Your task to perform on an android device: snooze an email in the gmail app Image 0: 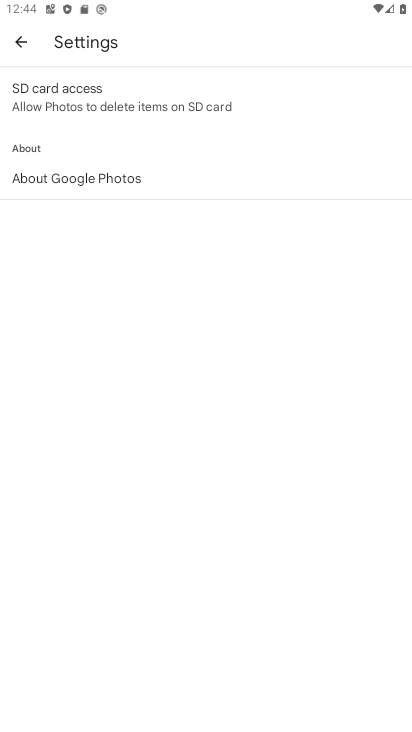
Step 0: press home button
Your task to perform on an android device: snooze an email in the gmail app Image 1: 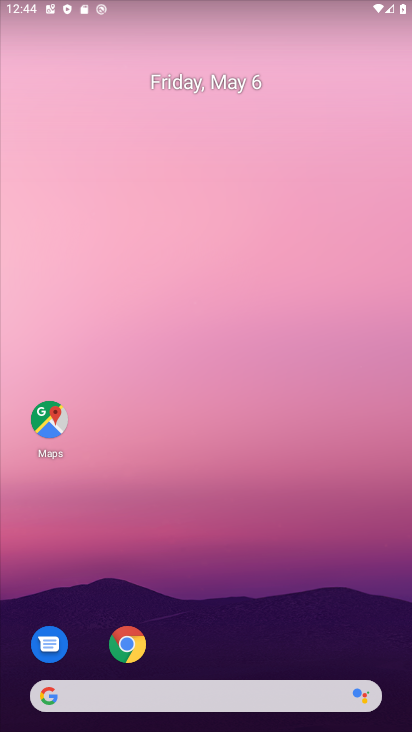
Step 1: drag from (202, 697) to (152, 71)
Your task to perform on an android device: snooze an email in the gmail app Image 2: 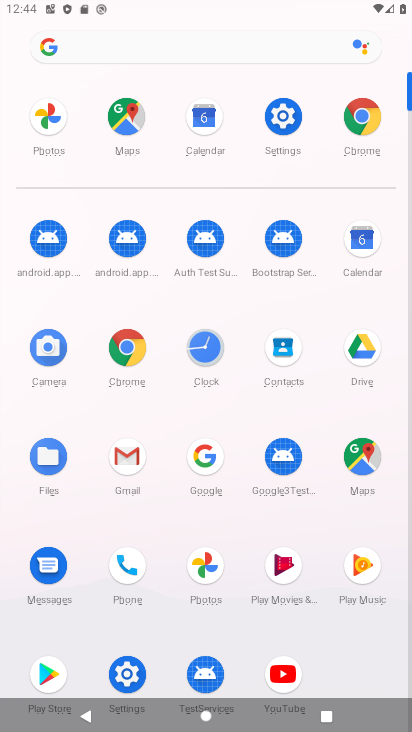
Step 2: click (126, 467)
Your task to perform on an android device: snooze an email in the gmail app Image 3: 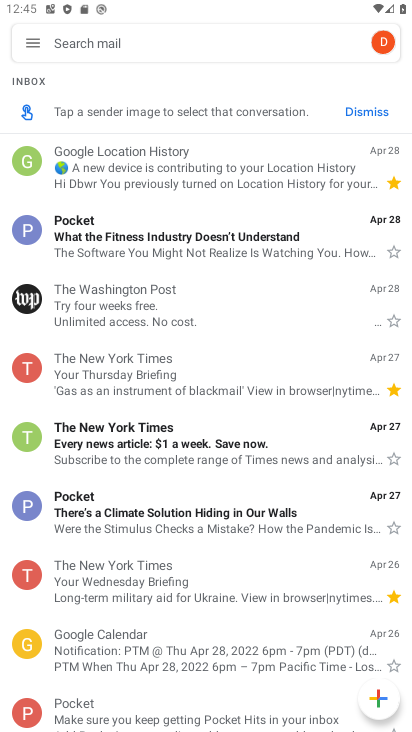
Step 3: click (361, 253)
Your task to perform on an android device: snooze an email in the gmail app Image 4: 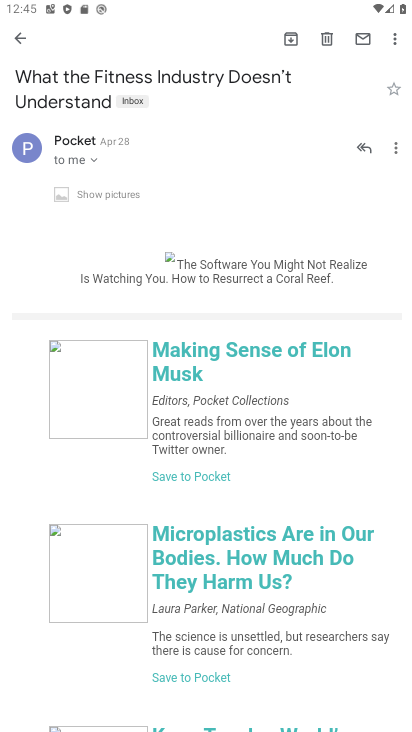
Step 4: click (397, 35)
Your task to perform on an android device: snooze an email in the gmail app Image 5: 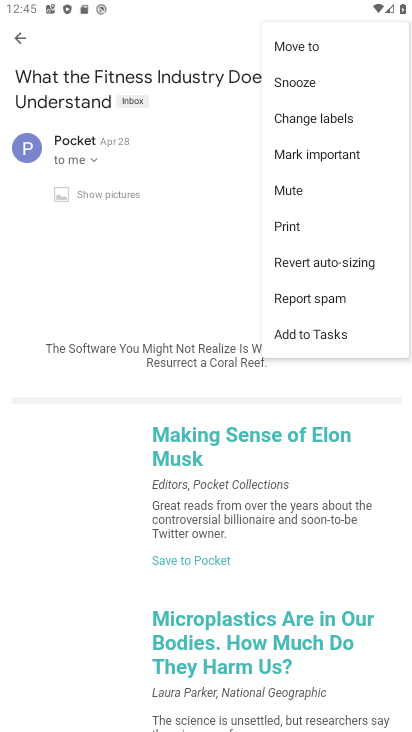
Step 5: task complete